Your task to perform on an android device: find photos in the google photos app Image 0: 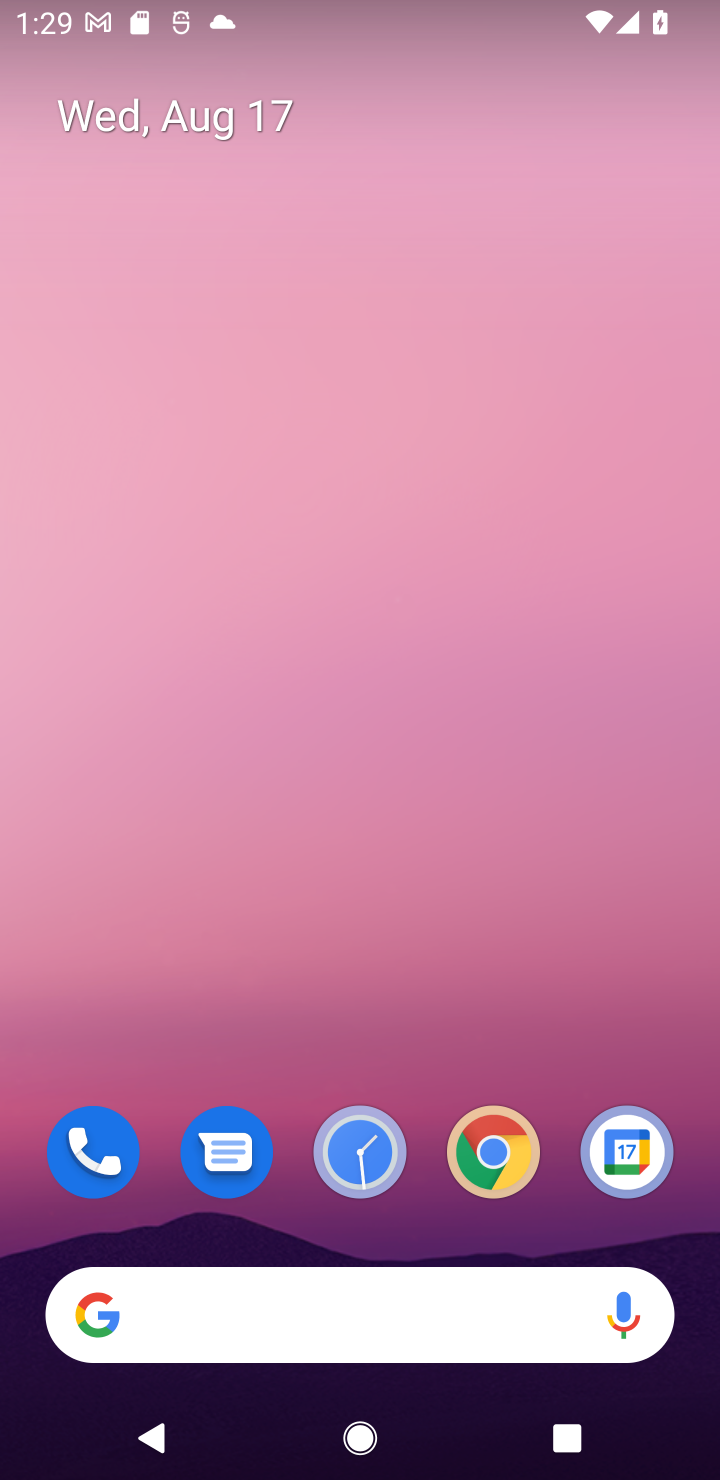
Step 0: drag from (573, 1217) to (209, 1)
Your task to perform on an android device: find photos in the google photos app Image 1: 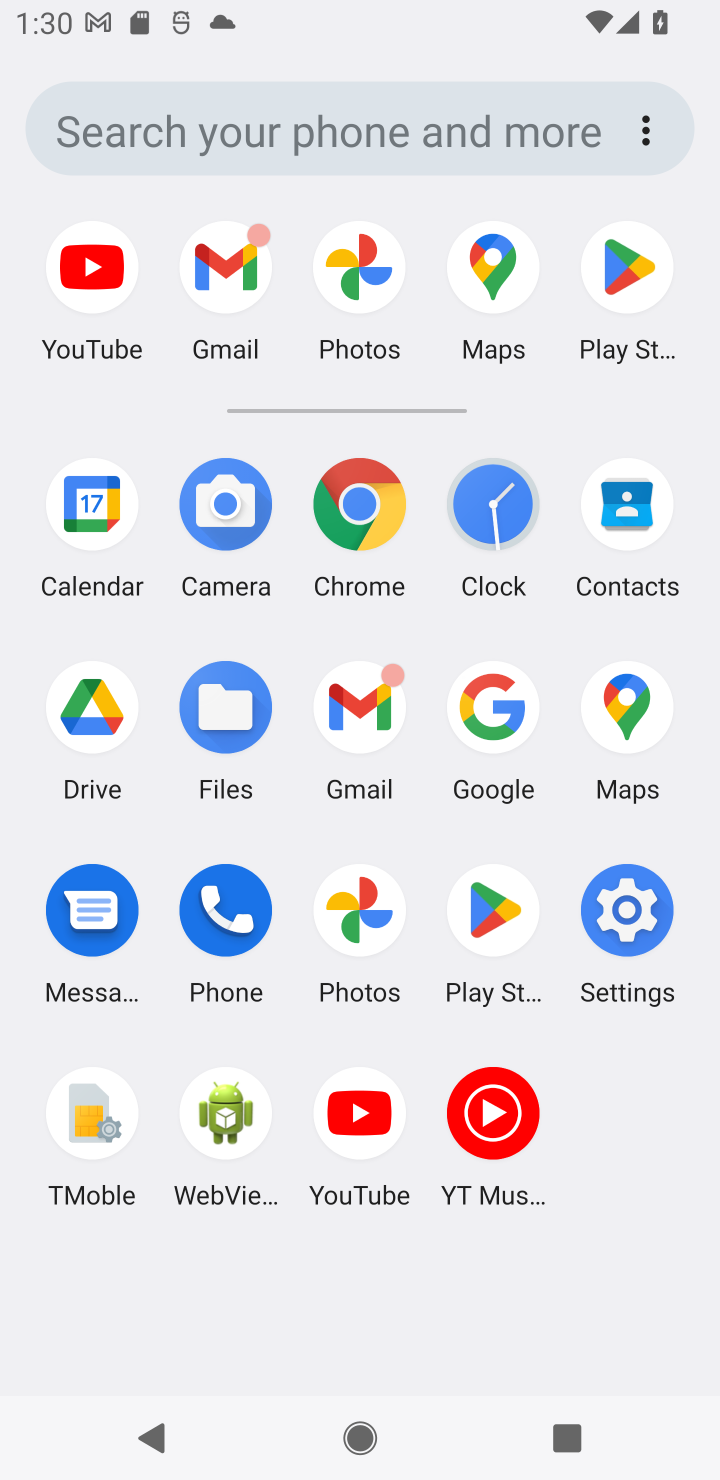
Step 1: click (353, 911)
Your task to perform on an android device: find photos in the google photos app Image 2: 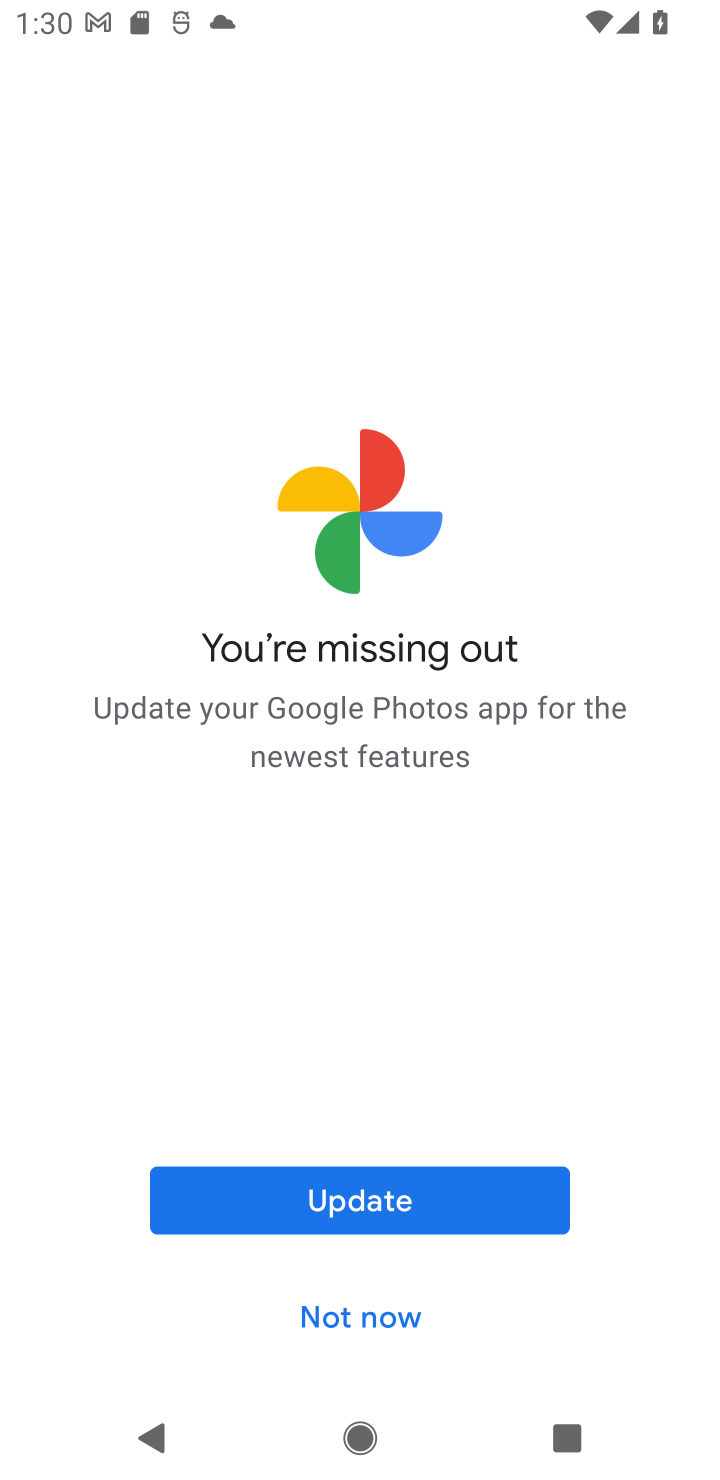
Step 2: task complete